Your task to perform on an android device: Open eBay Image 0: 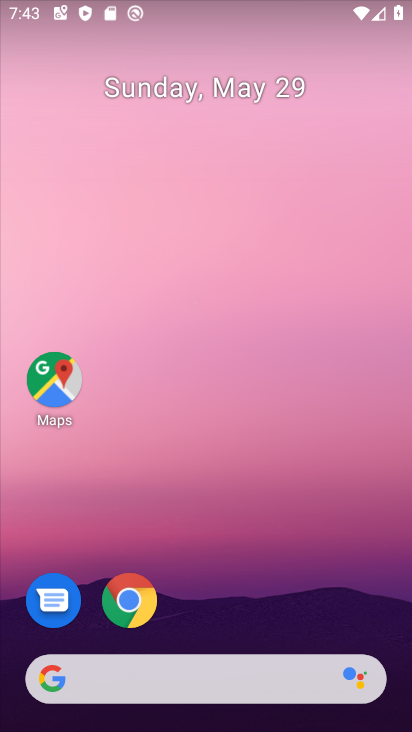
Step 0: drag from (252, 634) to (193, 604)
Your task to perform on an android device: Open eBay Image 1: 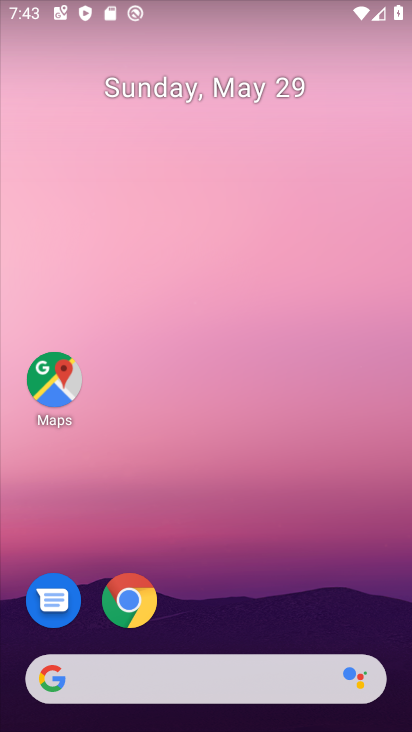
Step 1: click (140, 605)
Your task to perform on an android device: Open eBay Image 2: 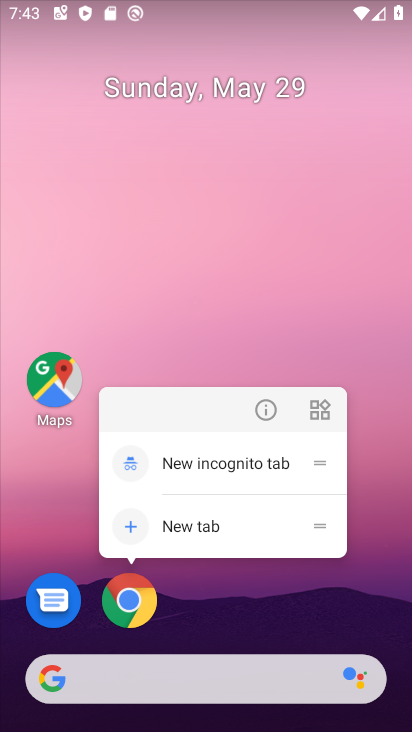
Step 2: click (140, 605)
Your task to perform on an android device: Open eBay Image 3: 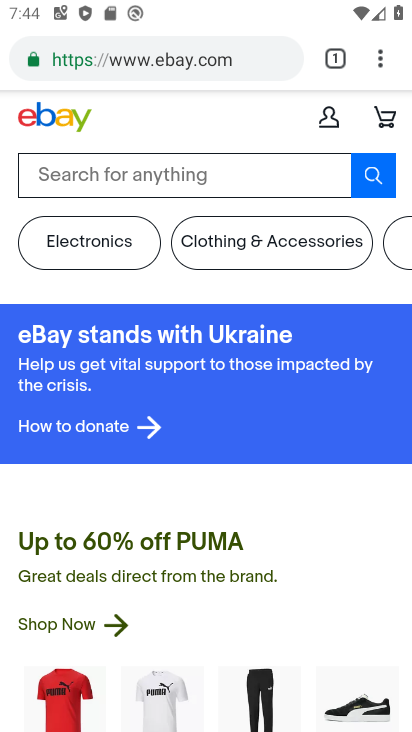
Step 3: task complete